Your task to perform on an android device: turn pop-ups off in chrome Image 0: 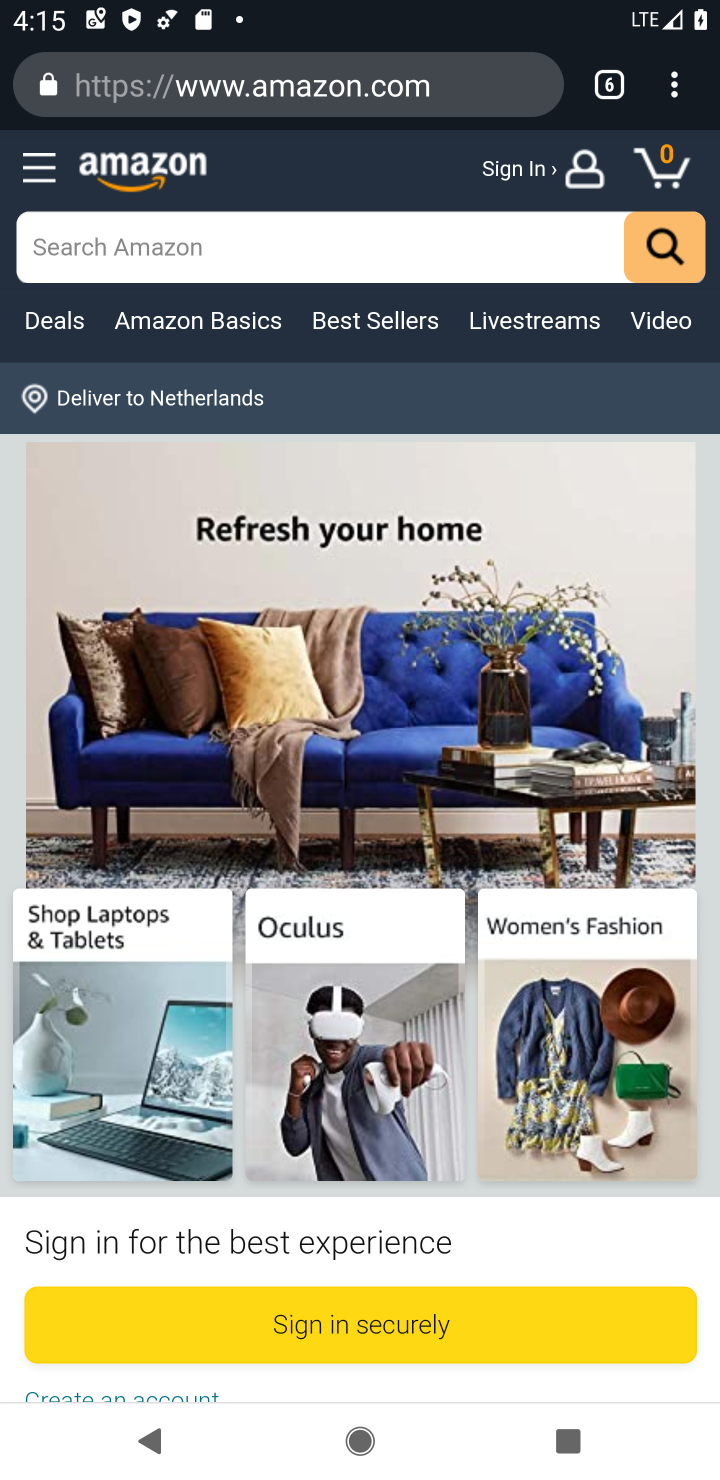
Step 0: click (685, 96)
Your task to perform on an android device: turn pop-ups off in chrome Image 1: 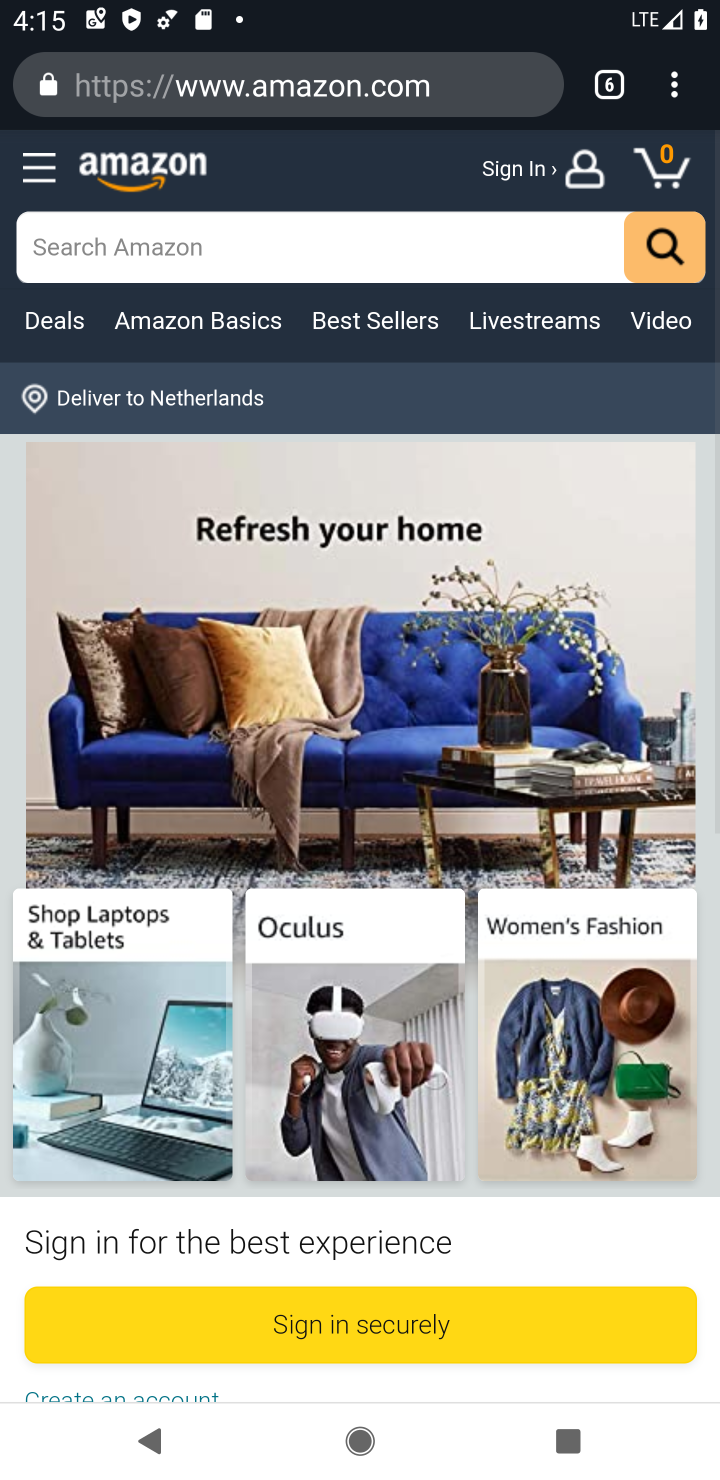
Step 1: drag from (670, 86) to (417, 1003)
Your task to perform on an android device: turn pop-ups off in chrome Image 2: 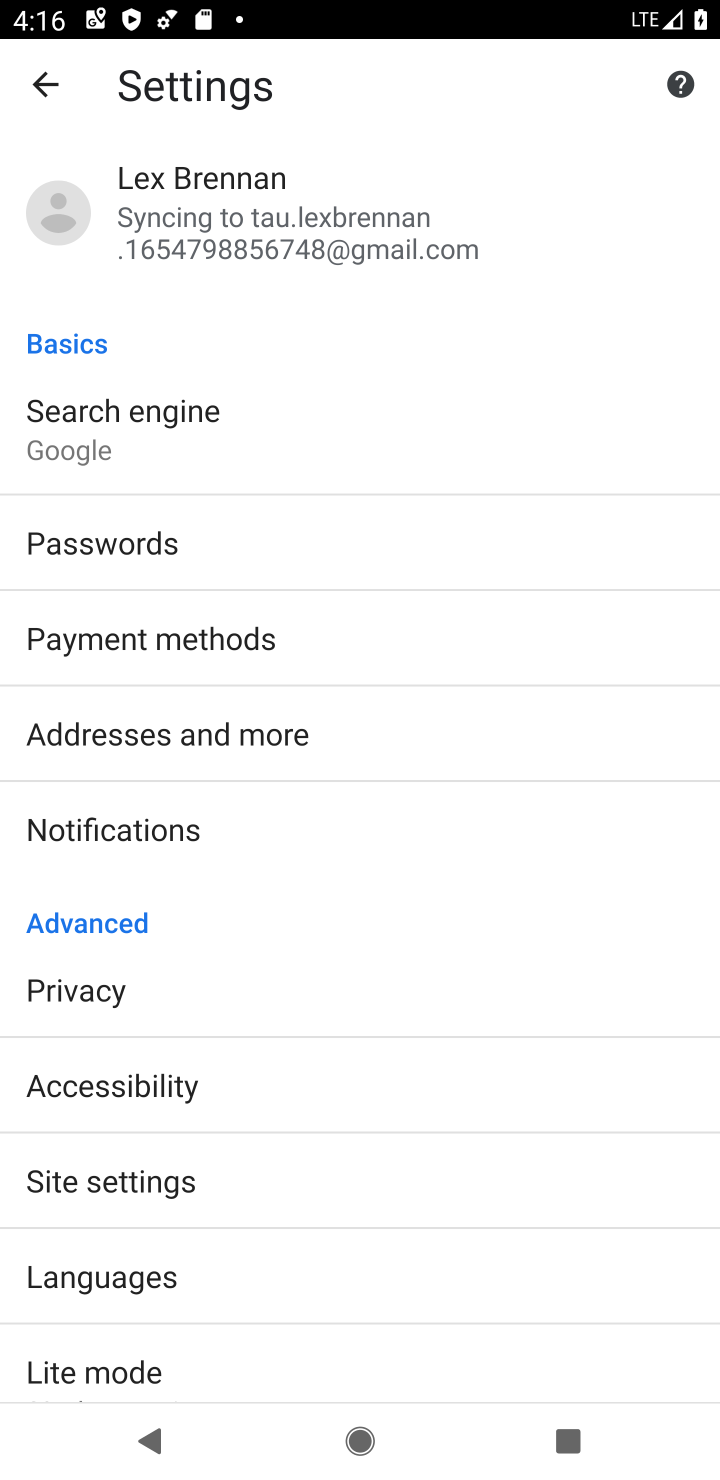
Step 2: drag from (217, 1189) to (291, 641)
Your task to perform on an android device: turn pop-ups off in chrome Image 3: 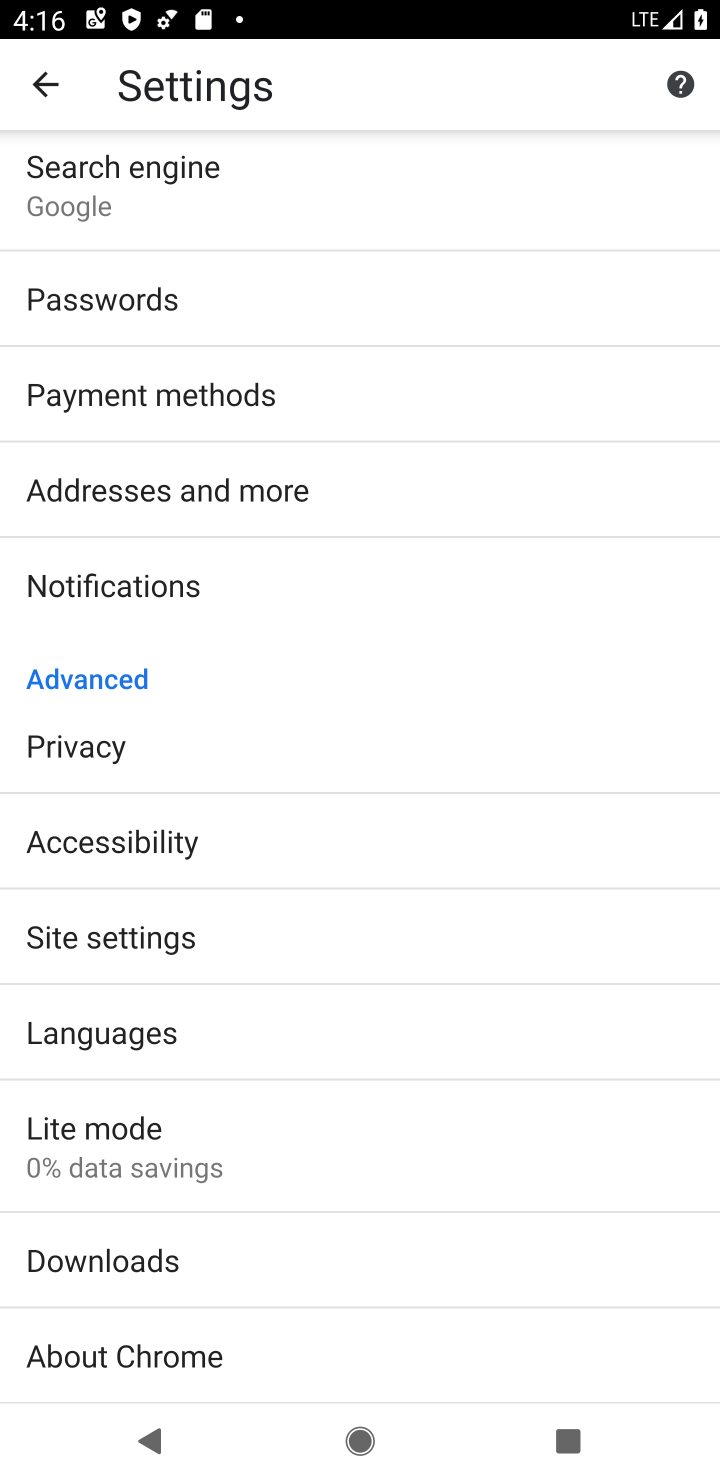
Step 3: drag from (314, 1193) to (357, 566)
Your task to perform on an android device: turn pop-ups off in chrome Image 4: 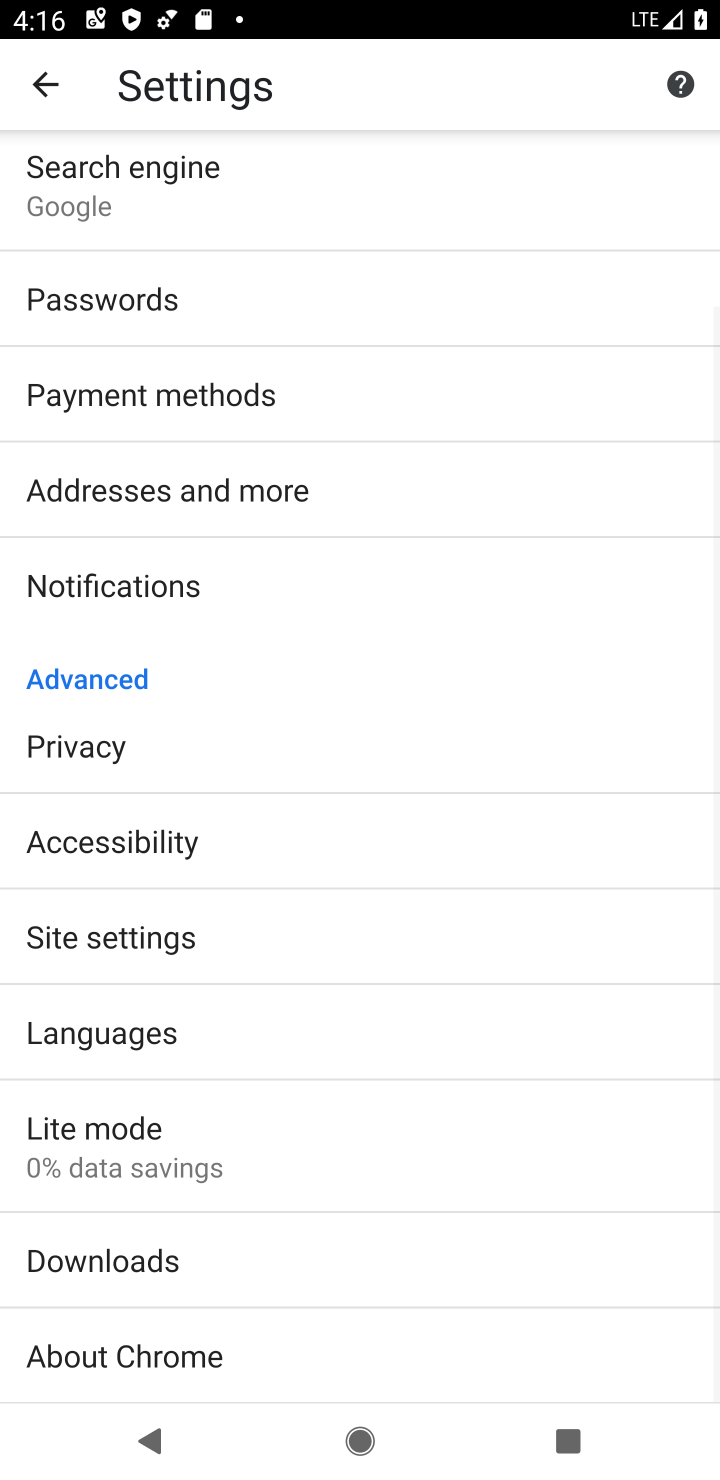
Step 4: click (222, 902)
Your task to perform on an android device: turn pop-ups off in chrome Image 5: 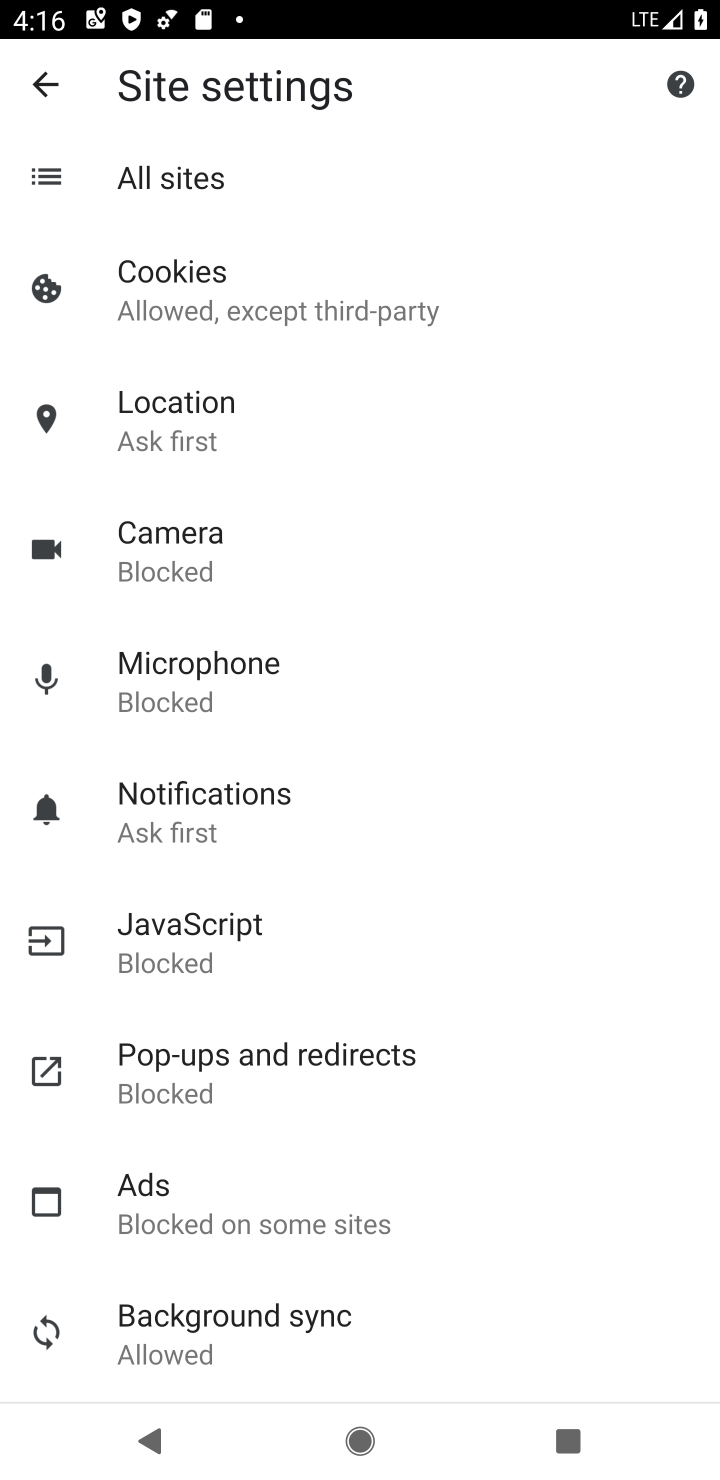
Step 5: click (288, 1064)
Your task to perform on an android device: turn pop-ups off in chrome Image 6: 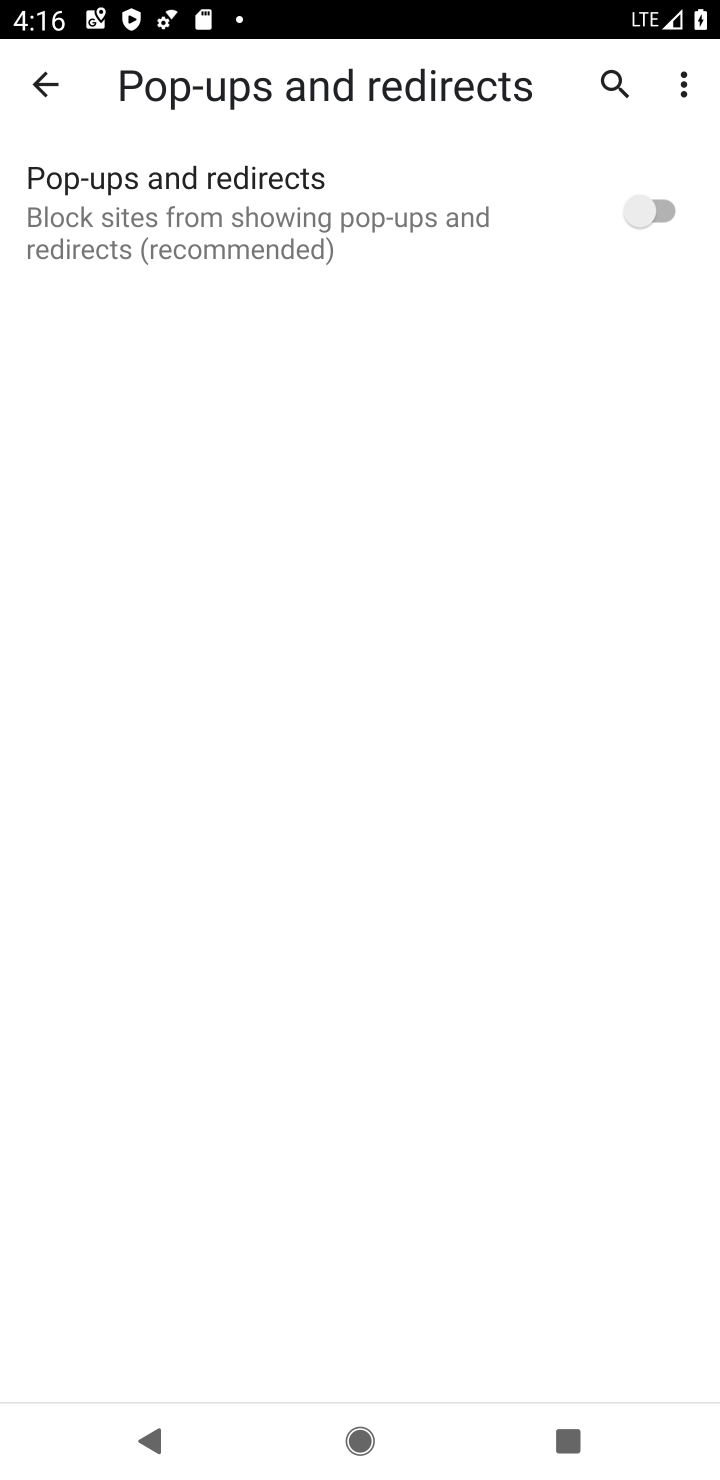
Step 6: task complete